Your task to perform on an android device: remove spam from my inbox in the gmail app Image 0: 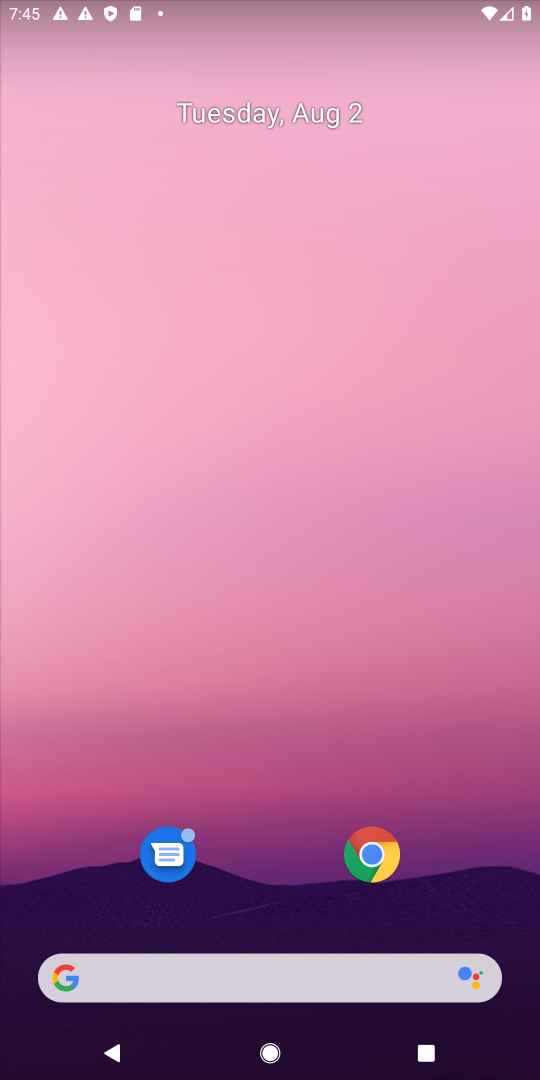
Step 0: drag from (288, 842) to (301, 137)
Your task to perform on an android device: remove spam from my inbox in the gmail app Image 1: 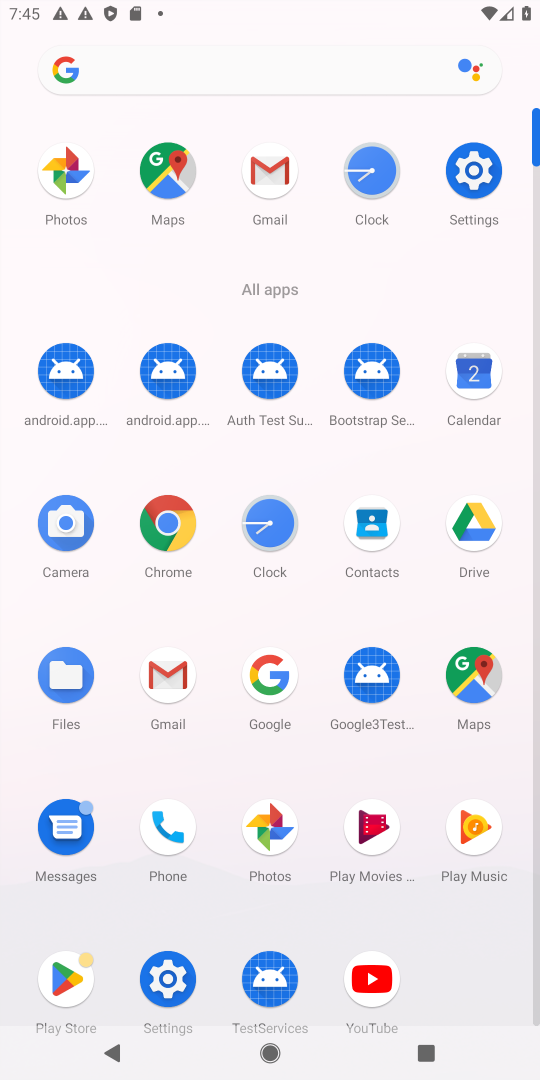
Step 1: click (169, 674)
Your task to perform on an android device: remove spam from my inbox in the gmail app Image 2: 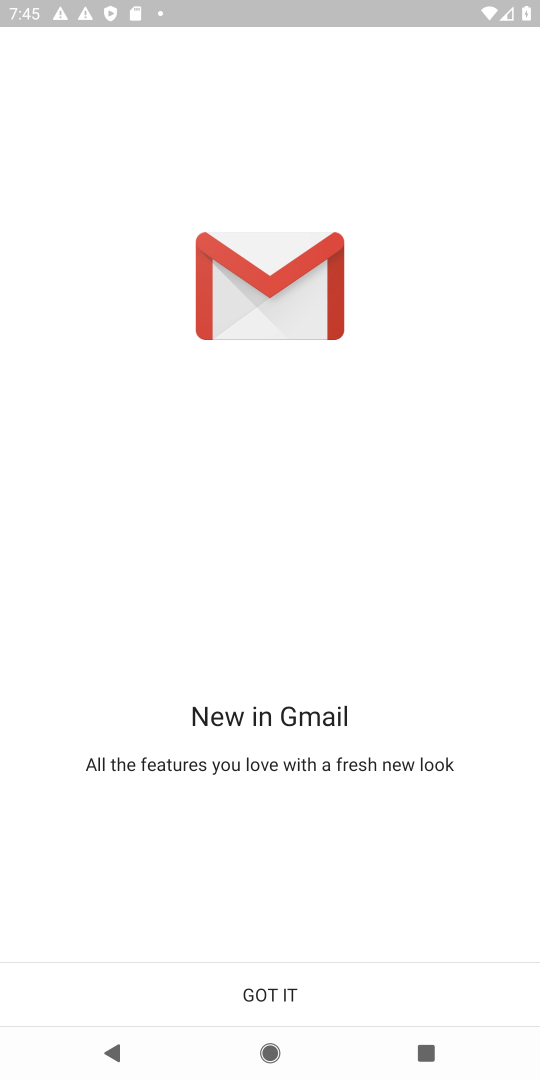
Step 2: click (291, 1001)
Your task to perform on an android device: remove spam from my inbox in the gmail app Image 3: 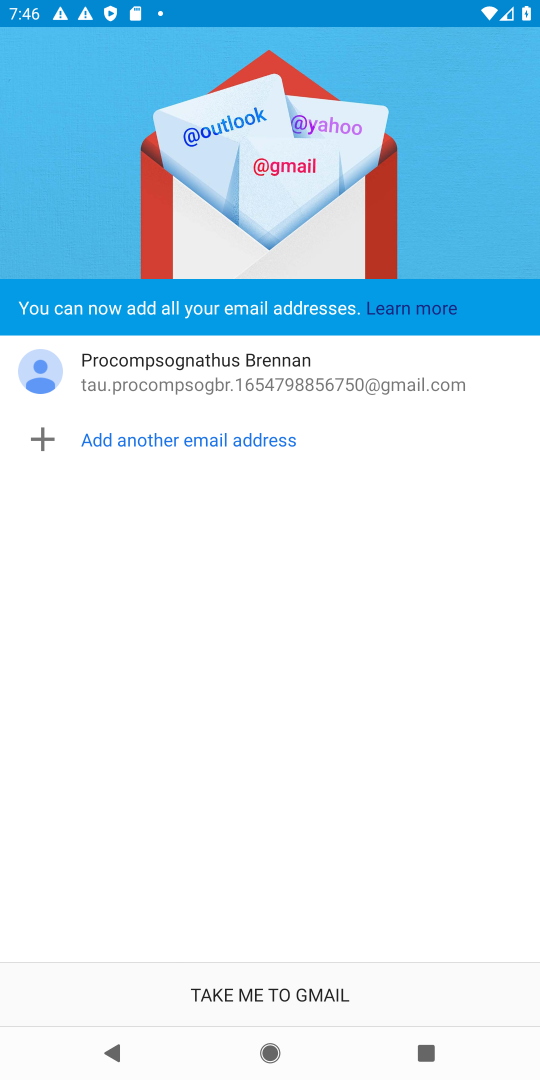
Step 3: click (321, 982)
Your task to perform on an android device: remove spam from my inbox in the gmail app Image 4: 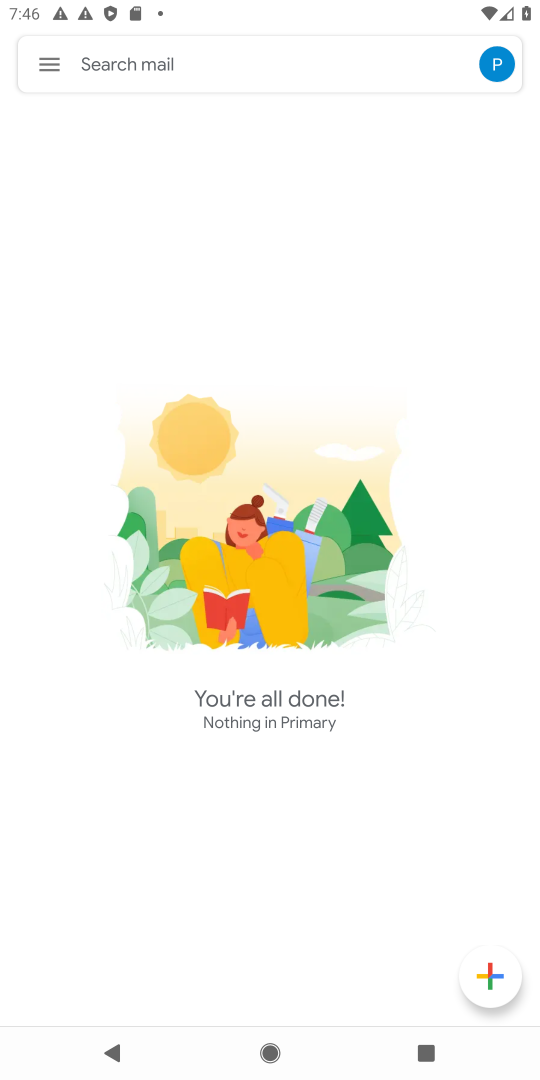
Step 4: click (42, 65)
Your task to perform on an android device: remove spam from my inbox in the gmail app Image 5: 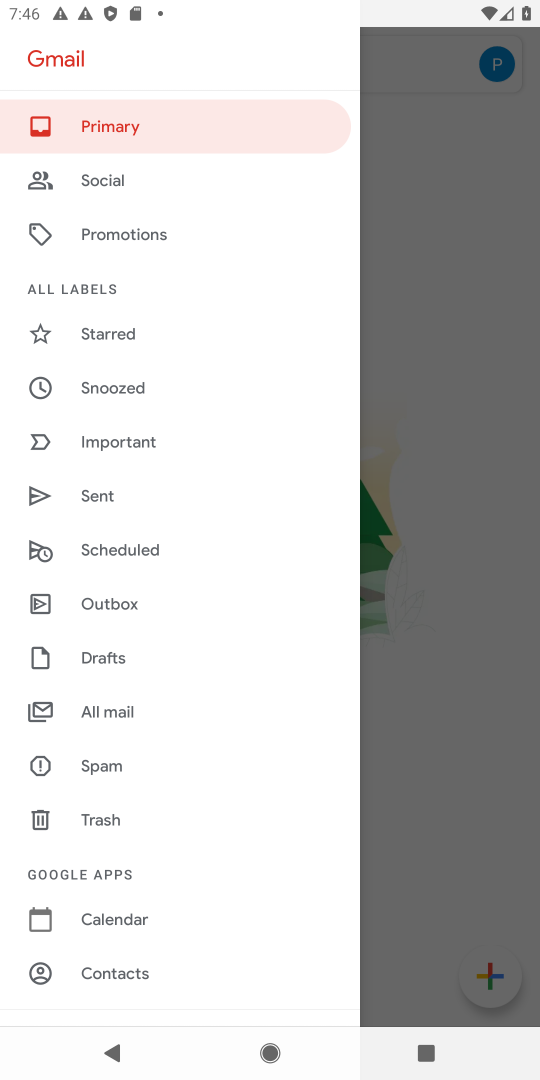
Step 5: click (129, 774)
Your task to perform on an android device: remove spam from my inbox in the gmail app Image 6: 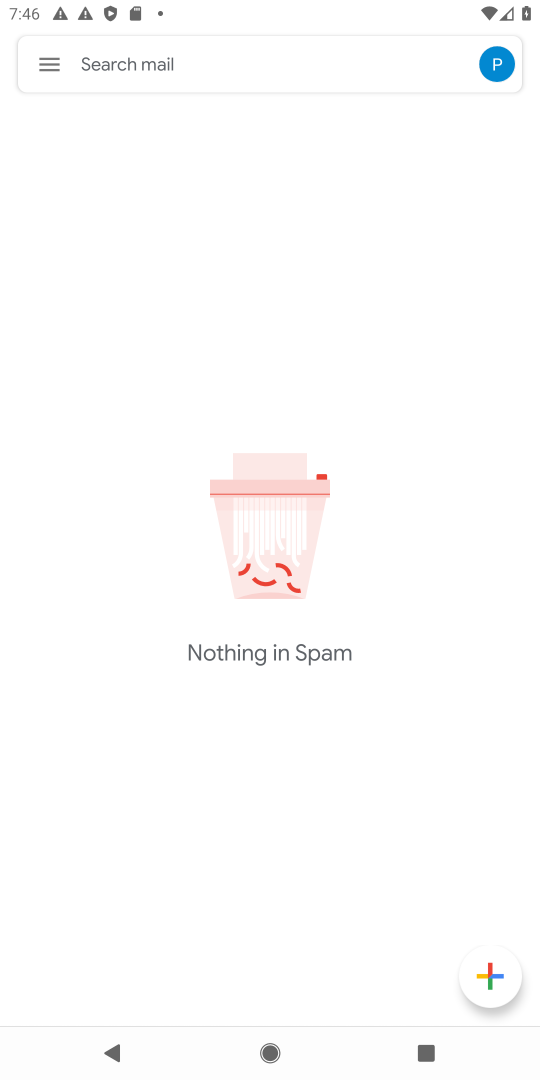
Step 6: click (116, 760)
Your task to perform on an android device: remove spam from my inbox in the gmail app Image 7: 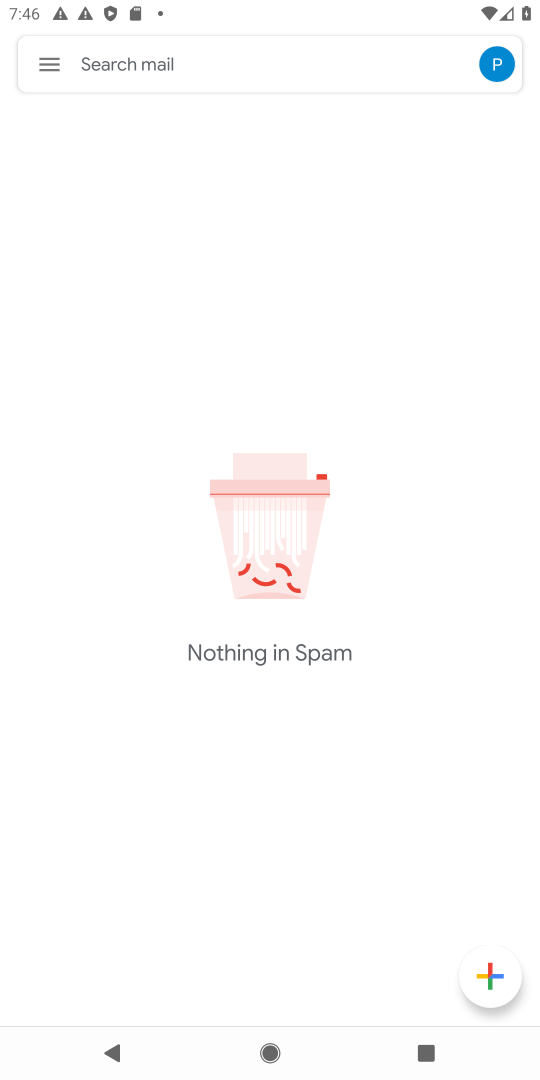
Step 7: task complete